Your task to perform on an android device: Do I have any events today? Image 0: 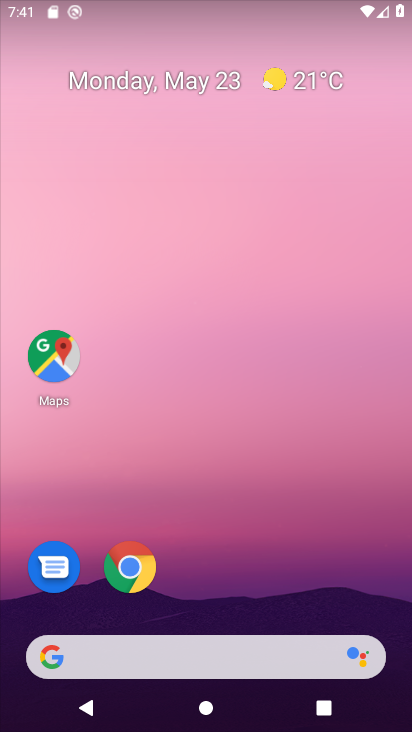
Step 0: drag from (241, 624) to (399, 30)
Your task to perform on an android device: Do I have any events today? Image 1: 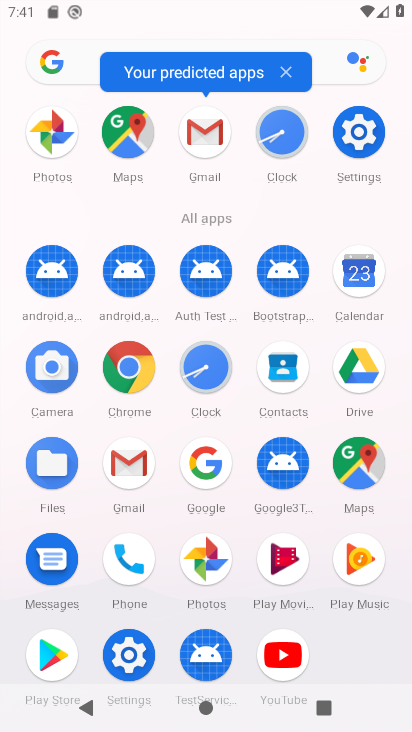
Step 1: drag from (172, 620) to (246, 292)
Your task to perform on an android device: Do I have any events today? Image 2: 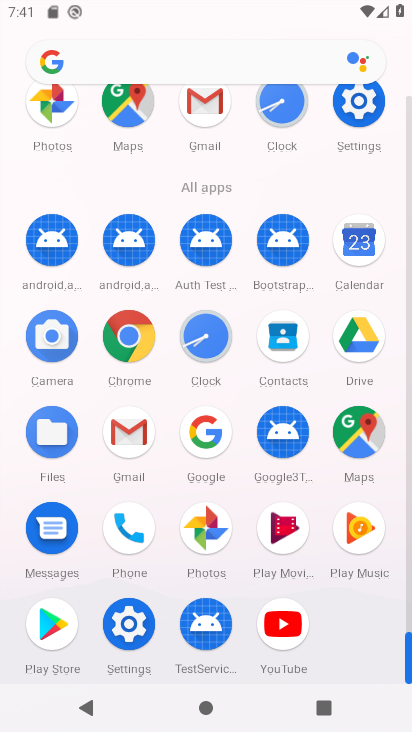
Step 2: click (353, 247)
Your task to perform on an android device: Do I have any events today? Image 3: 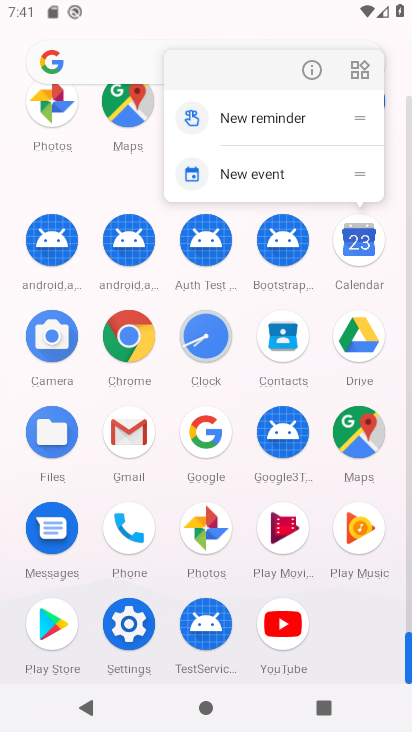
Step 3: click (350, 247)
Your task to perform on an android device: Do I have any events today? Image 4: 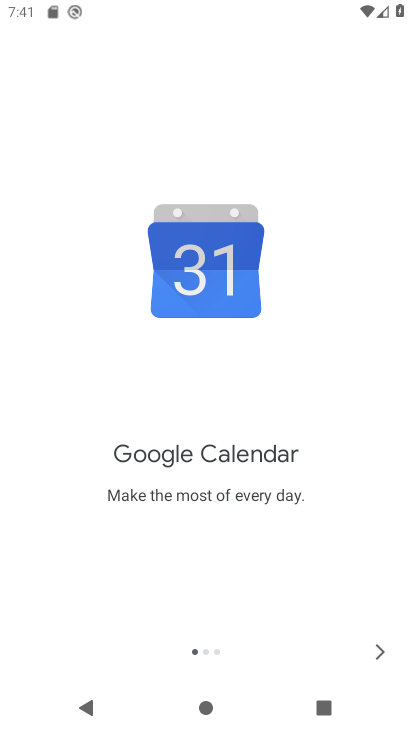
Step 4: click (381, 651)
Your task to perform on an android device: Do I have any events today? Image 5: 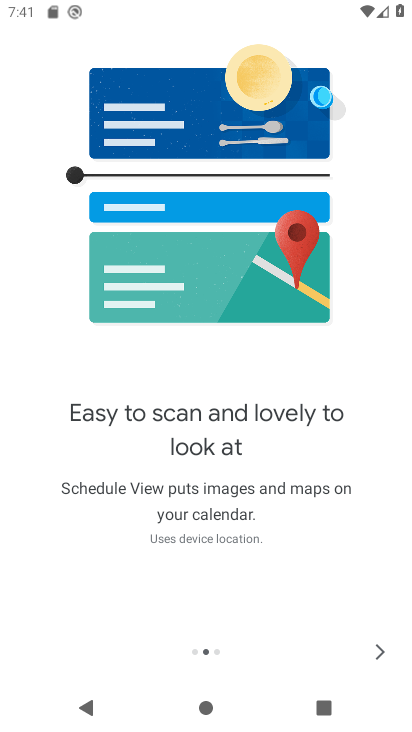
Step 5: click (383, 654)
Your task to perform on an android device: Do I have any events today? Image 6: 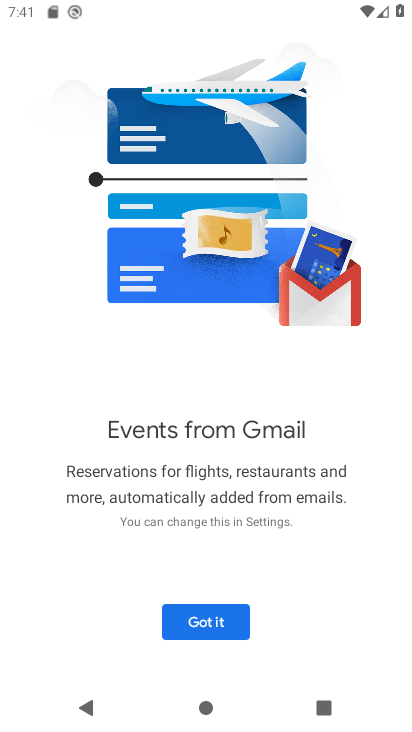
Step 6: click (240, 630)
Your task to perform on an android device: Do I have any events today? Image 7: 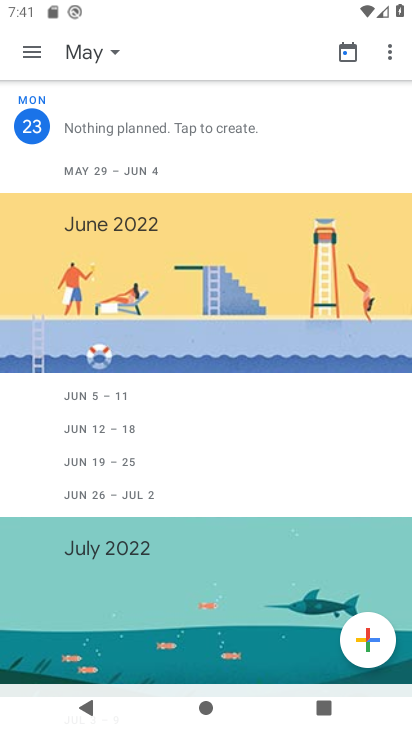
Step 7: click (239, 628)
Your task to perform on an android device: Do I have any events today? Image 8: 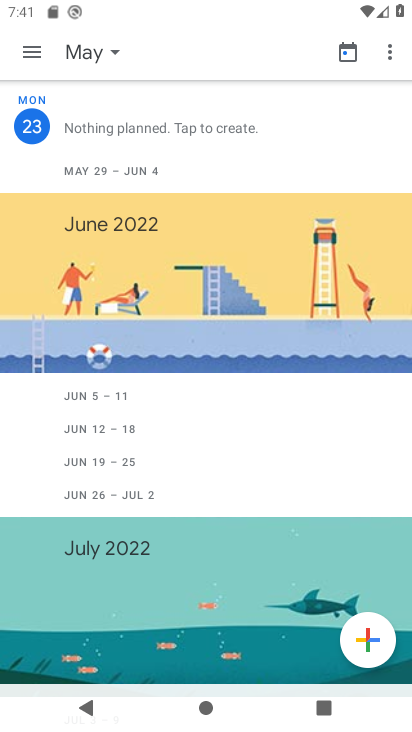
Step 8: click (63, 126)
Your task to perform on an android device: Do I have any events today? Image 9: 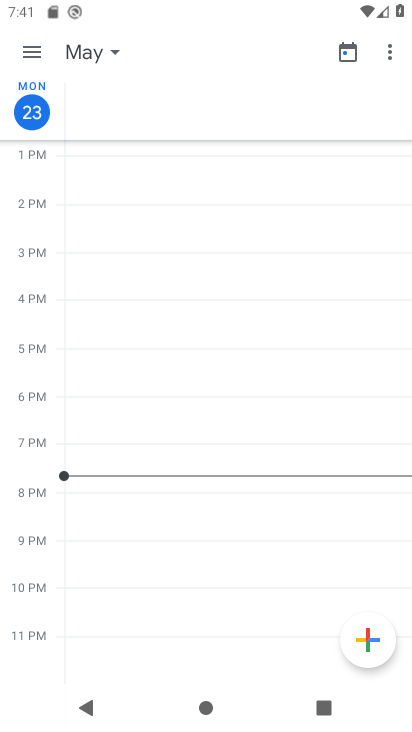
Step 9: task complete